Your task to perform on an android device: Is it going to rain tomorrow? Image 0: 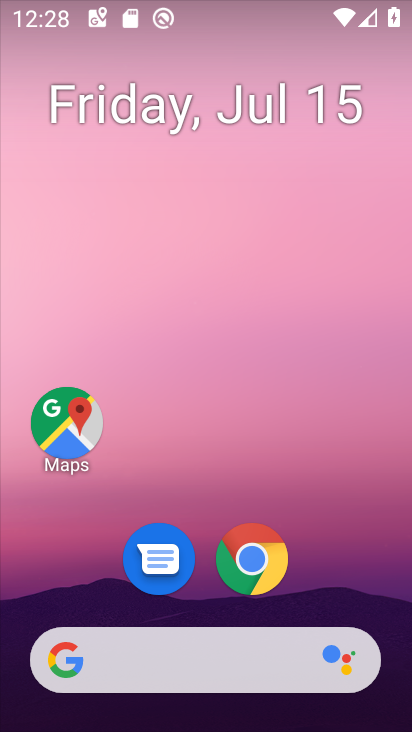
Step 0: drag from (354, 571) to (349, 257)
Your task to perform on an android device: Is it going to rain tomorrow? Image 1: 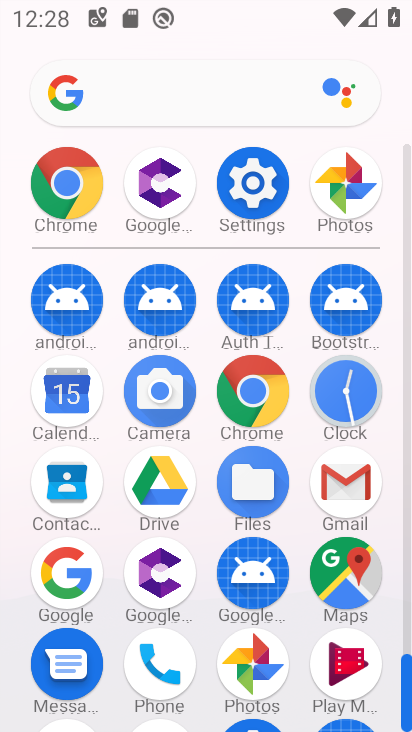
Step 1: click (257, 99)
Your task to perform on an android device: Is it going to rain tomorrow? Image 2: 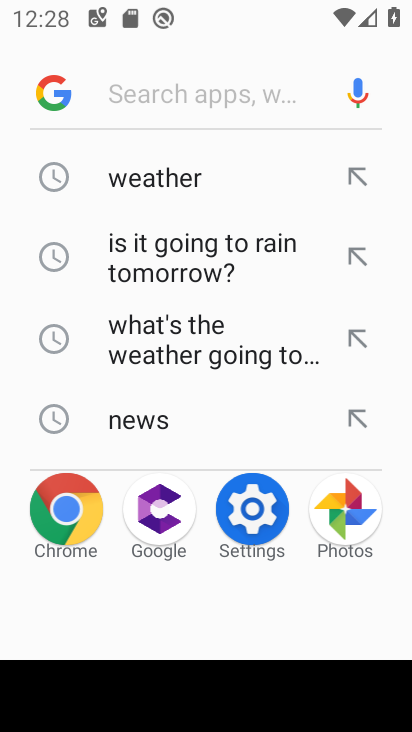
Step 2: click (224, 191)
Your task to perform on an android device: Is it going to rain tomorrow? Image 3: 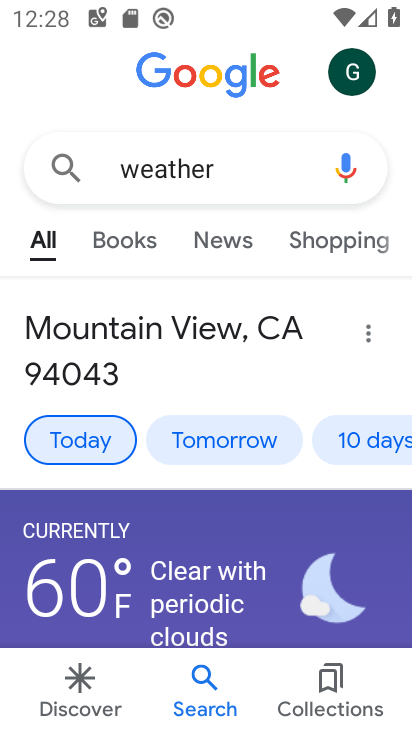
Step 3: click (238, 431)
Your task to perform on an android device: Is it going to rain tomorrow? Image 4: 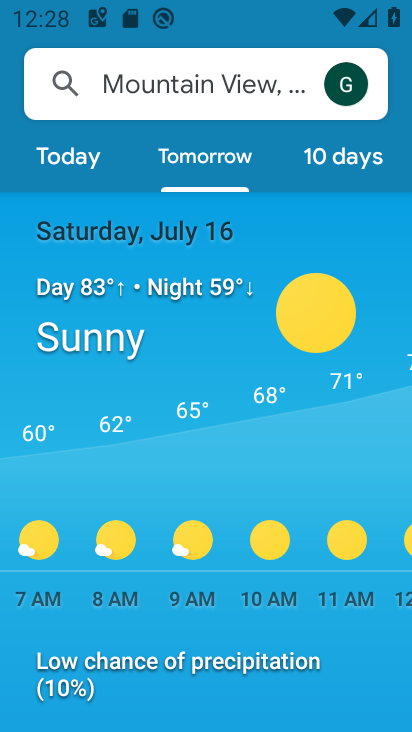
Step 4: task complete